Your task to perform on an android device: Go to accessibility settings Image 0: 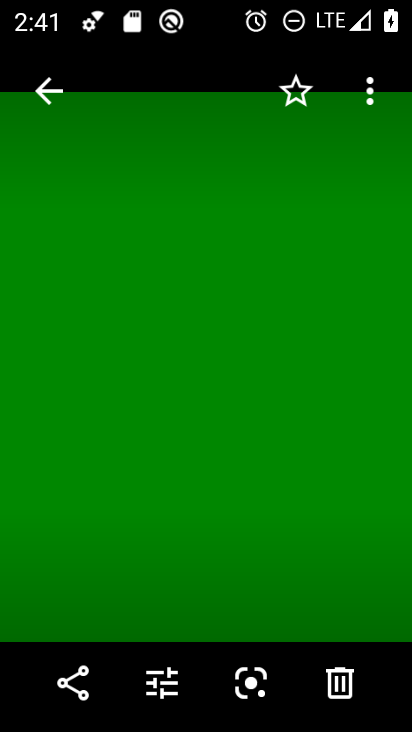
Step 0: press home button
Your task to perform on an android device: Go to accessibility settings Image 1: 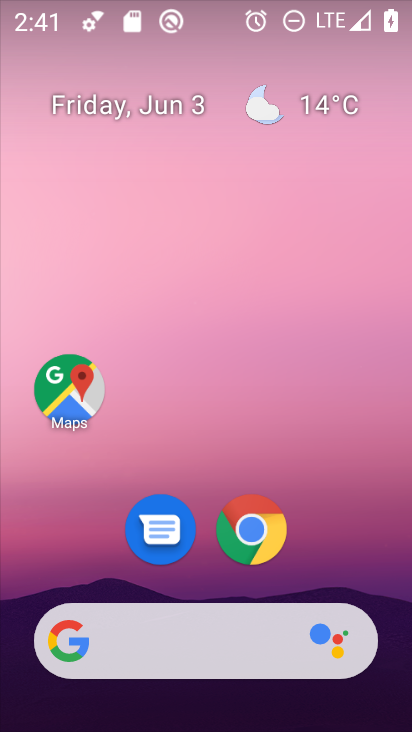
Step 1: drag from (372, 592) to (382, 211)
Your task to perform on an android device: Go to accessibility settings Image 2: 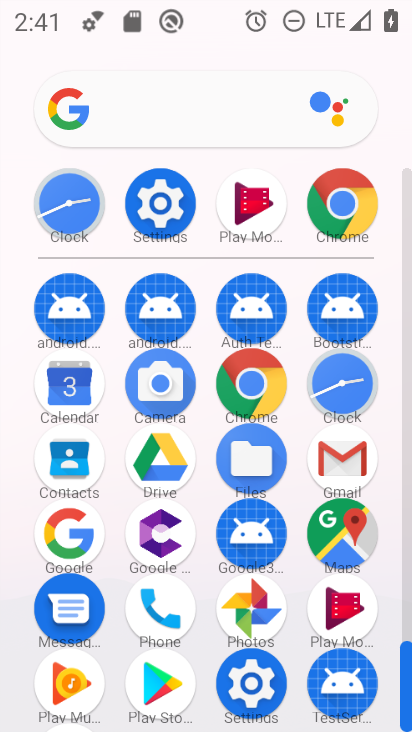
Step 2: click (175, 219)
Your task to perform on an android device: Go to accessibility settings Image 3: 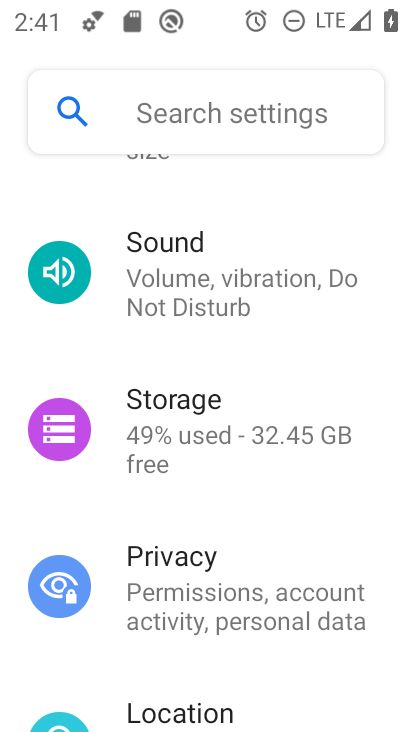
Step 3: drag from (359, 527) to (357, 440)
Your task to perform on an android device: Go to accessibility settings Image 4: 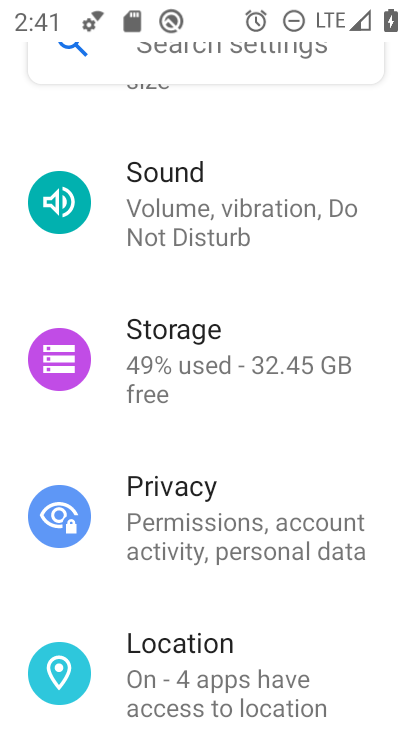
Step 4: drag from (366, 562) to (366, 459)
Your task to perform on an android device: Go to accessibility settings Image 5: 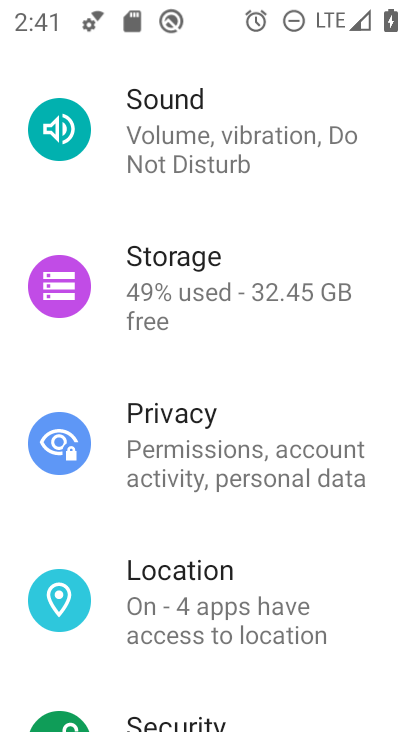
Step 5: drag from (359, 560) to (359, 462)
Your task to perform on an android device: Go to accessibility settings Image 6: 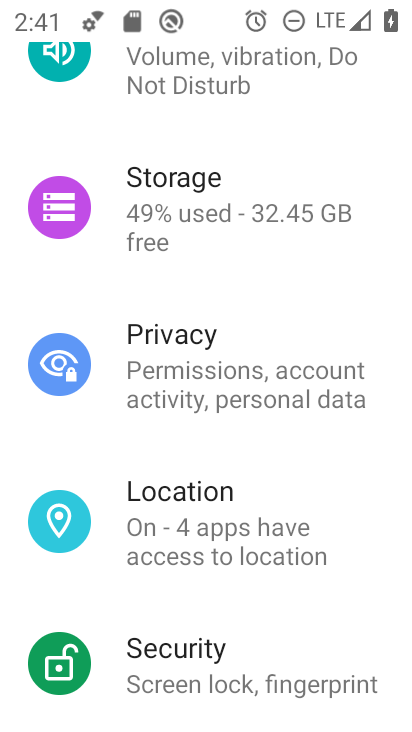
Step 6: drag from (371, 547) to (381, 449)
Your task to perform on an android device: Go to accessibility settings Image 7: 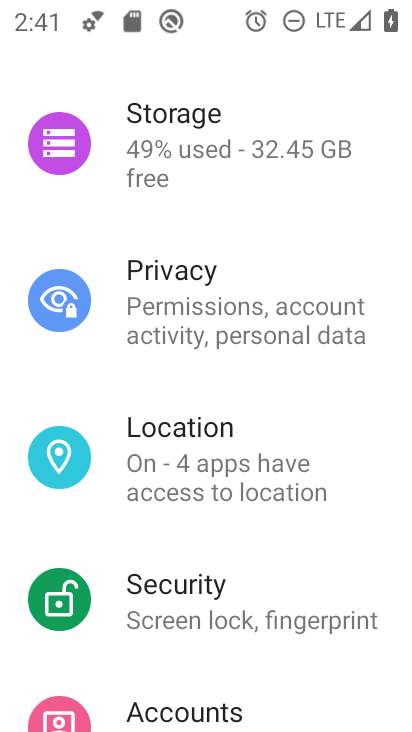
Step 7: drag from (365, 548) to (364, 444)
Your task to perform on an android device: Go to accessibility settings Image 8: 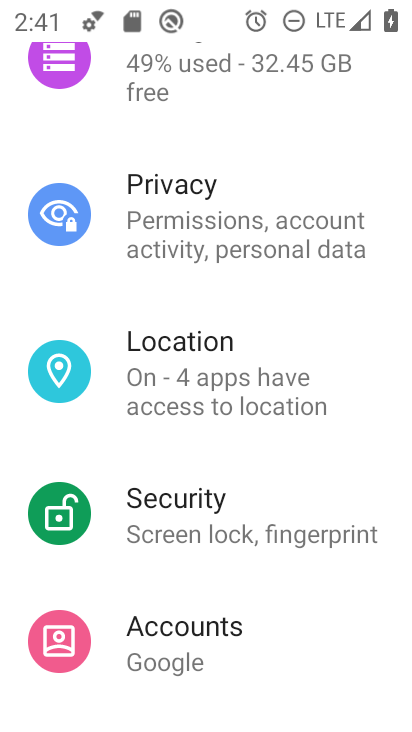
Step 8: drag from (361, 581) to (370, 500)
Your task to perform on an android device: Go to accessibility settings Image 9: 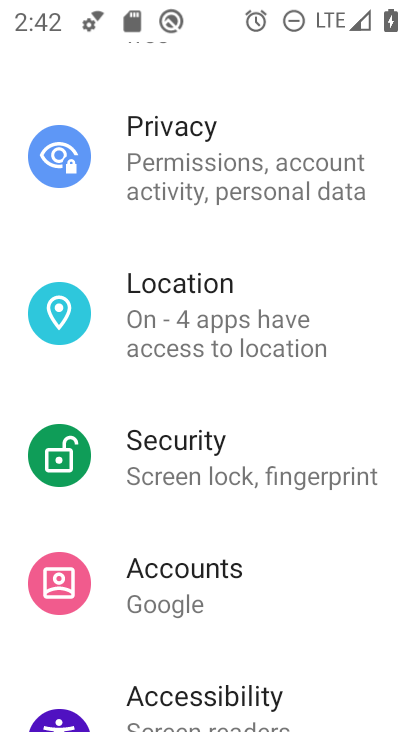
Step 9: drag from (361, 567) to (359, 472)
Your task to perform on an android device: Go to accessibility settings Image 10: 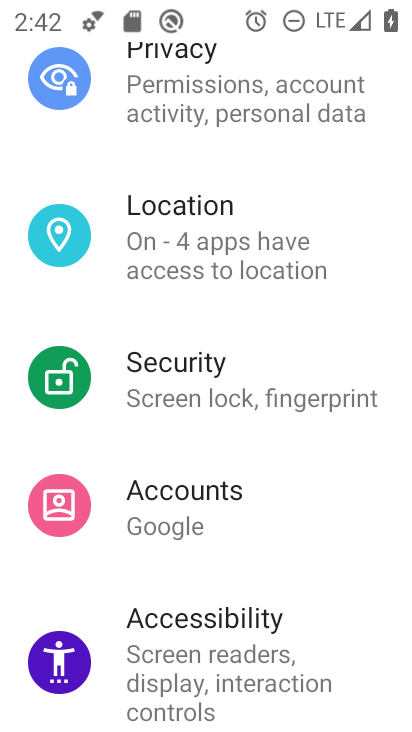
Step 10: drag from (359, 565) to (359, 463)
Your task to perform on an android device: Go to accessibility settings Image 11: 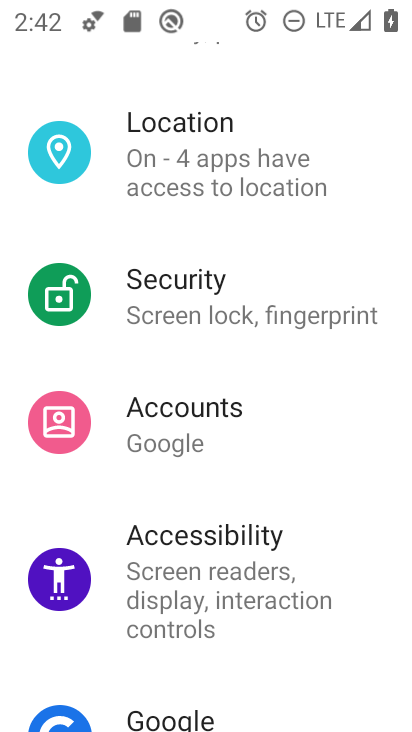
Step 11: drag from (357, 532) to (363, 419)
Your task to perform on an android device: Go to accessibility settings Image 12: 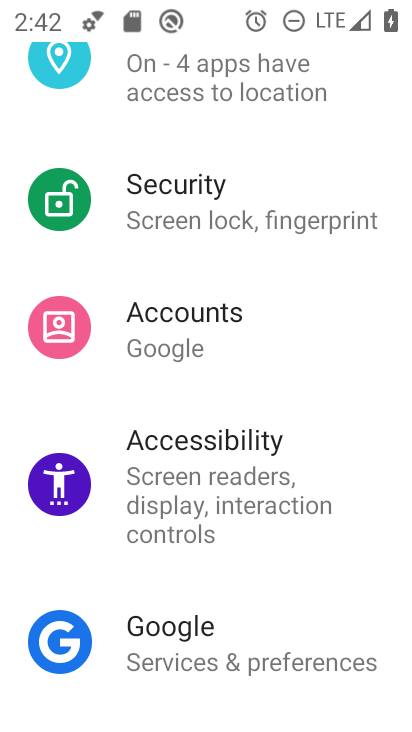
Step 12: drag from (358, 534) to (356, 432)
Your task to perform on an android device: Go to accessibility settings Image 13: 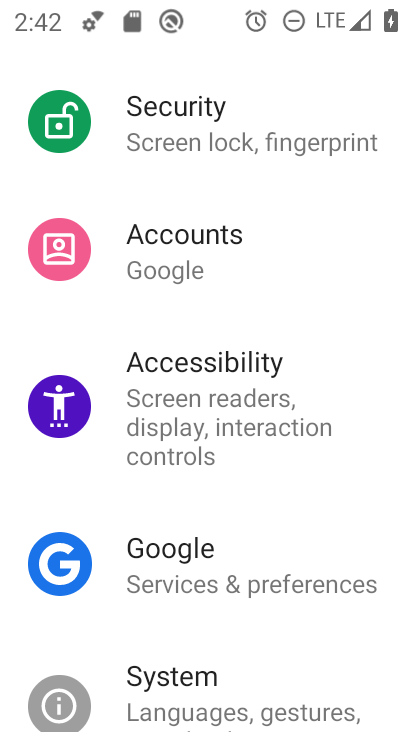
Step 13: drag from (350, 484) to (366, 381)
Your task to perform on an android device: Go to accessibility settings Image 14: 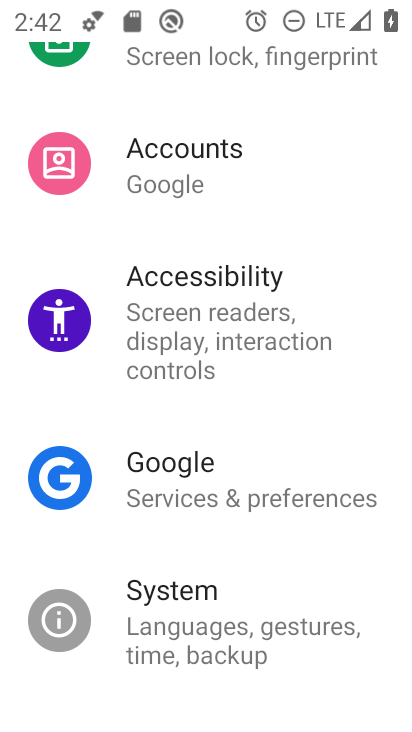
Step 14: drag from (367, 538) to (369, 381)
Your task to perform on an android device: Go to accessibility settings Image 15: 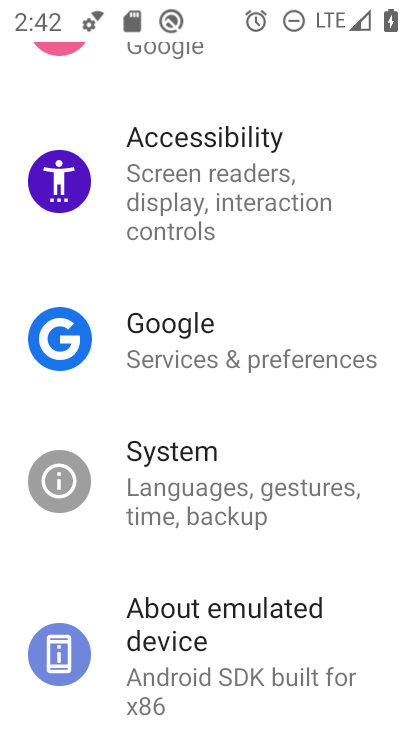
Step 15: click (270, 195)
Your task to perform on an android device: Go to accessibility settings Image 16: 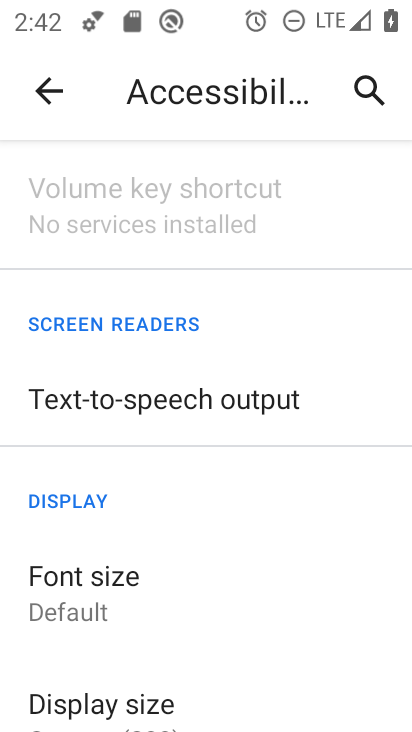
Step 16: task complete